Your task to perform on an android device: Toggle the flashlight Image 0: 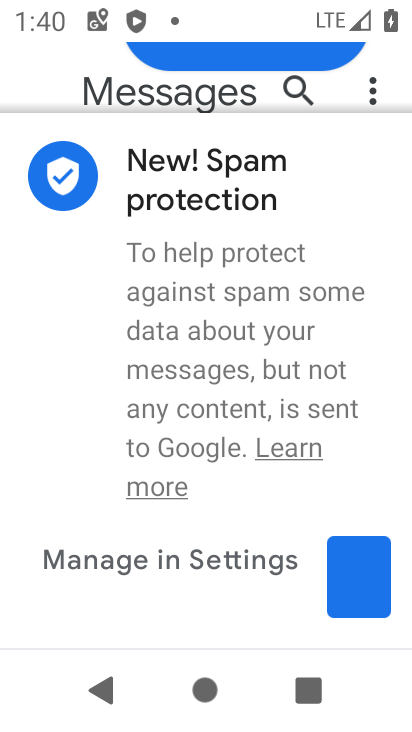
Step 0: press home button
Your task to perform on an android device: Toggle the flashlight Image 1: 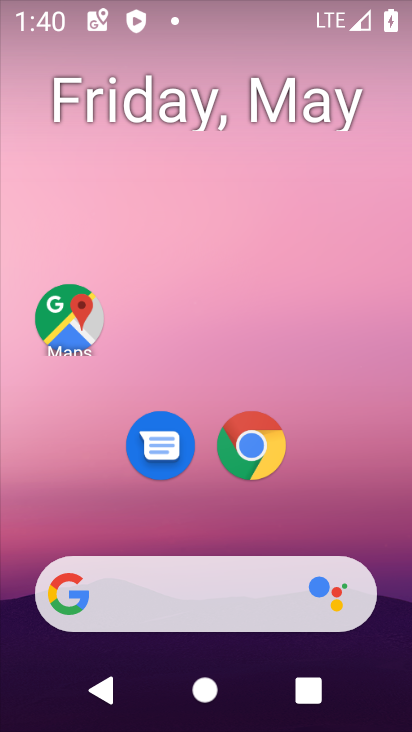
Step 1: drag from (233, 424) to (270, 3)
Your task to perform on an android device: Toggle the flashlight Image 2: 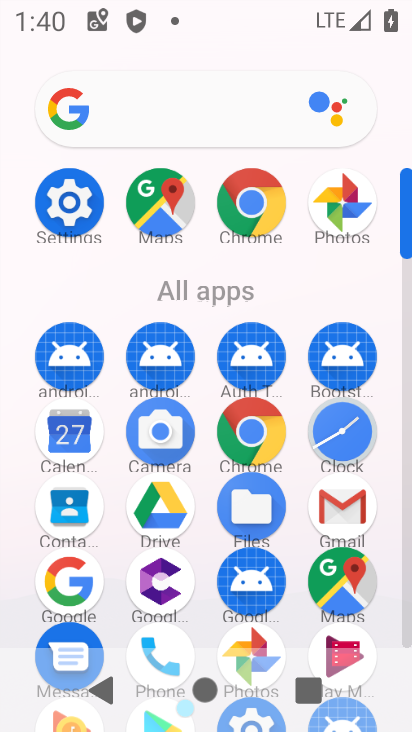
Step 2: click (67, 197)
Your task to perform on an android device: Toggle the flashlight Image 3: 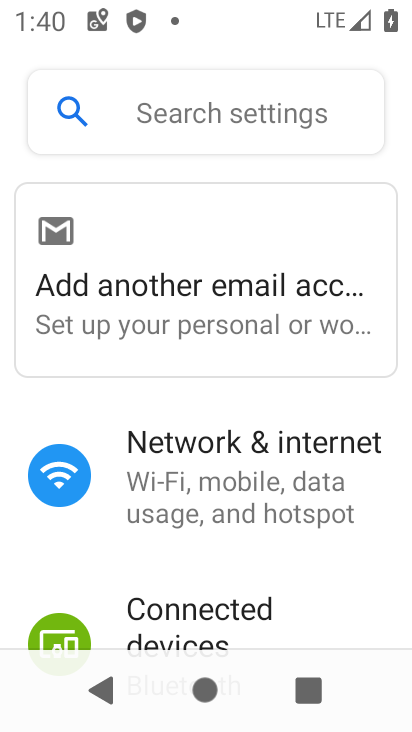
Step 3: click (167, 120)
Your task to perform on an android device: Toggle the flashlight Image 4: 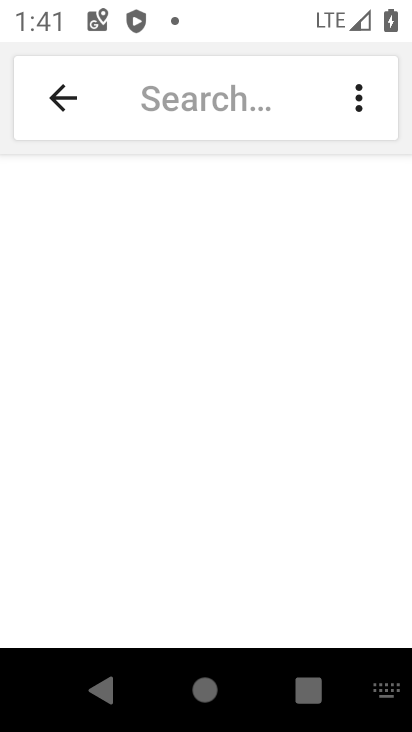
Step 4: type "flashlight"
Your task to perform on an android device: Toggle the flashlight Image 5: 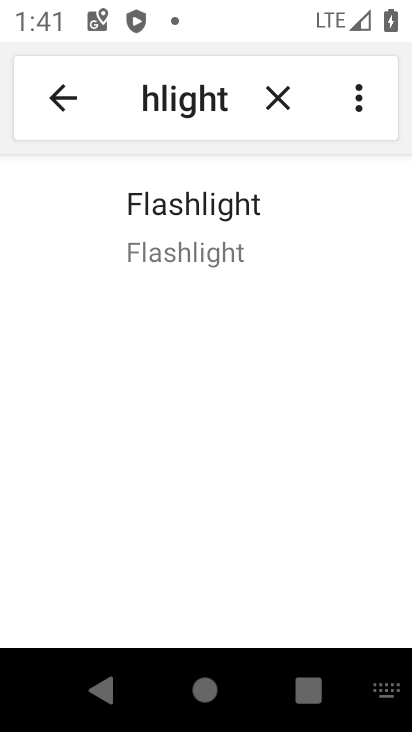
Step 5: click (195, 222)
Your task to perform on an android device: Toggle the flashlight Image 6: 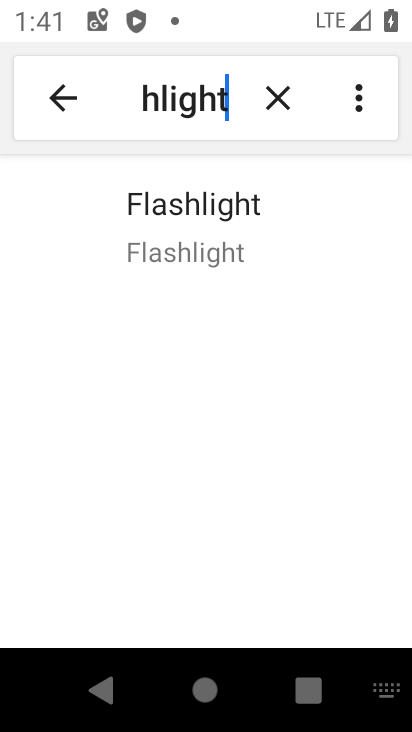
Step 6: task complete